Your task to perform on an android device: Go to internet settings Image 0: 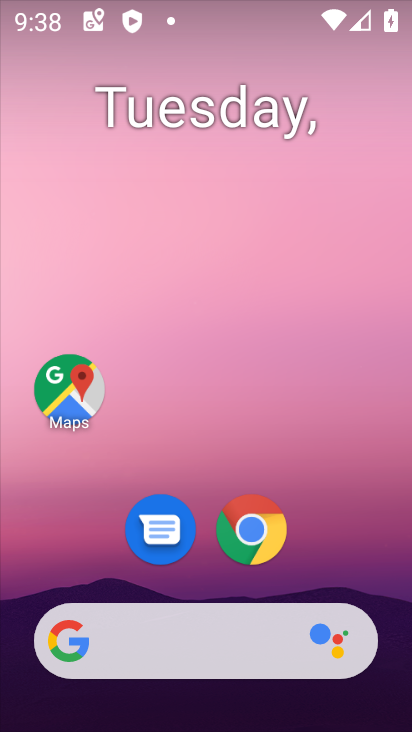
Step 0: drag from (249, 680) to (270, 13)
Your task to perform on an android device: Go to internet settings Image 1: 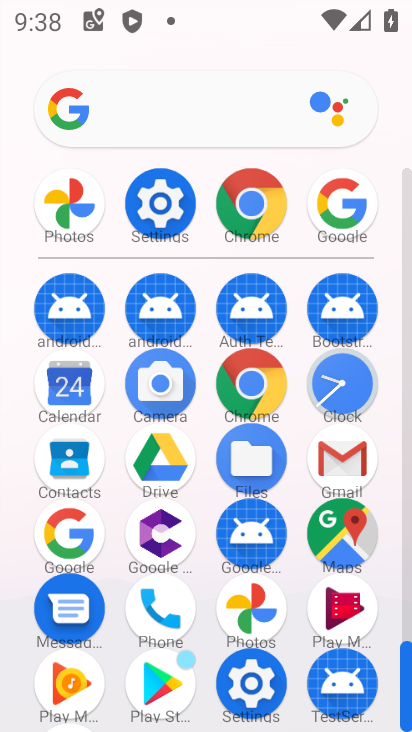
Step 1: click (162, 201)
Your task to perform on an android device: Go to internet settings Image 2: 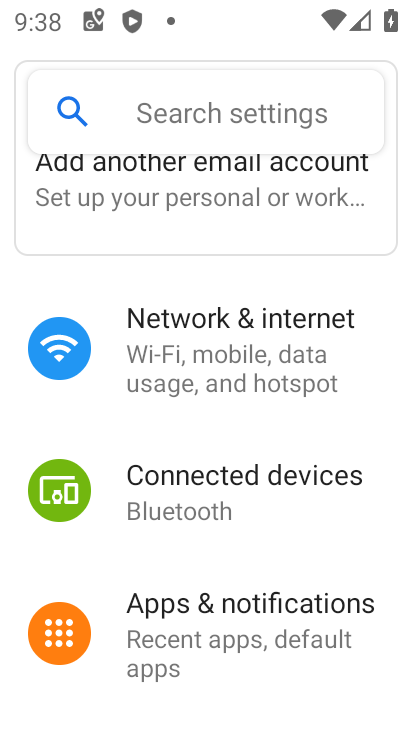
Step 2: click (238, 369)
Your task to perform on an android device: Go to internet settings Image 3: 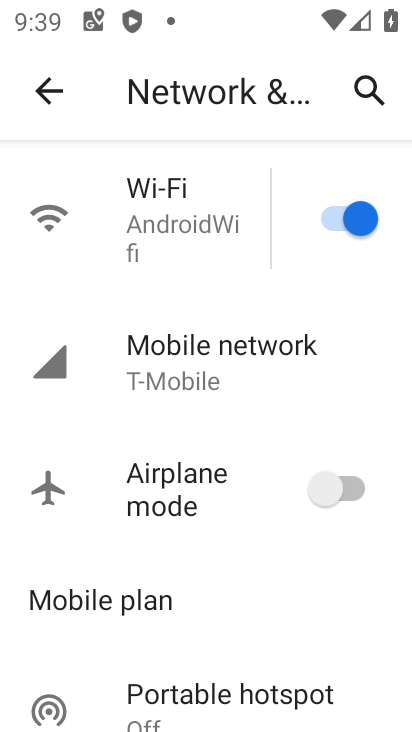
Step 3: click (191, 373)
Your task to perform on an android device: Go to internet settings Image 4: 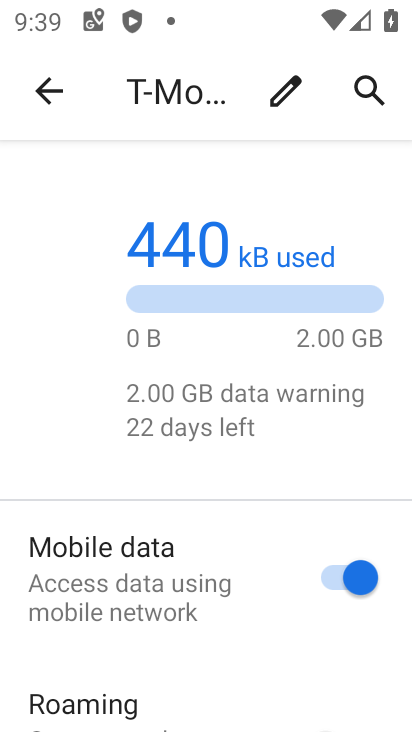
Step 4: task complete